Your task to perform on an android device: When is my next meeting? Image 0: 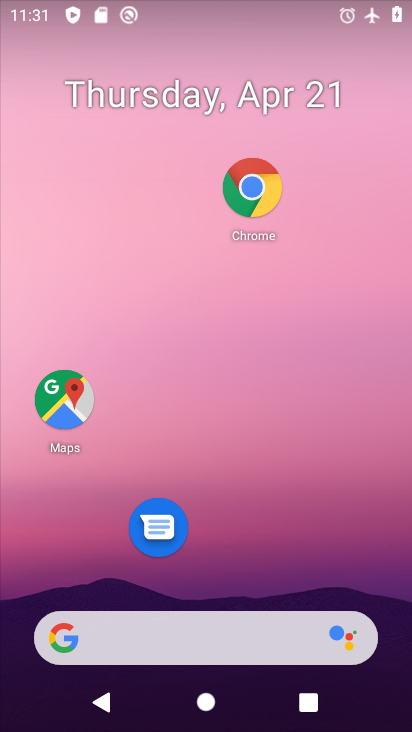
Step 0: drag from (240, 618) to (335, 68)
Your task to perform on an android device: When is my next meeting? Image 1: 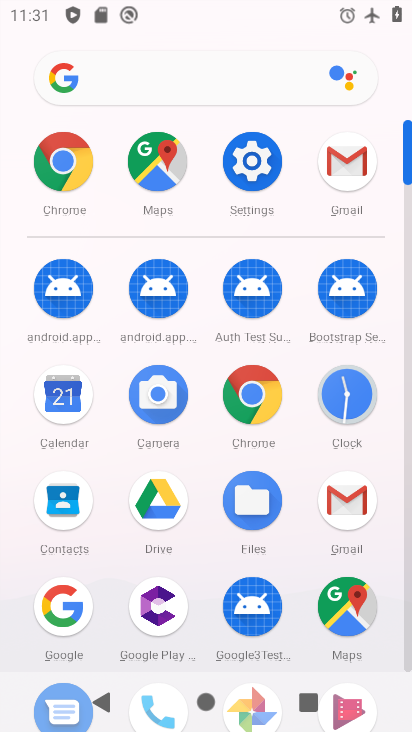
Step 1: click (72, 378)
Your task to perform on an android device: When is my next meeting? Image 2: 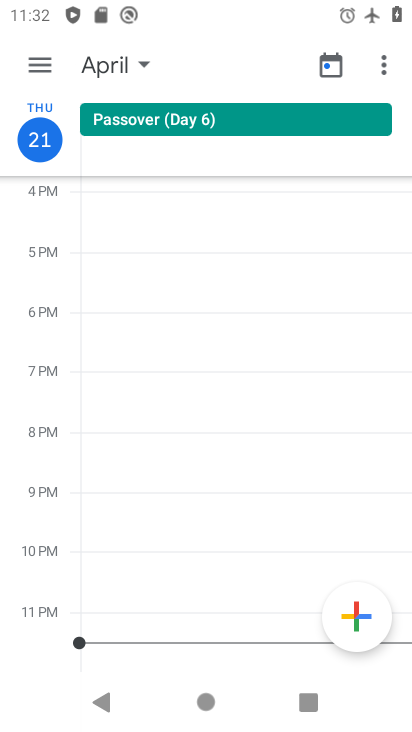
Step 2: click (45, 56)
Your task to perform on an android device: When is my next meeting? Image 3: 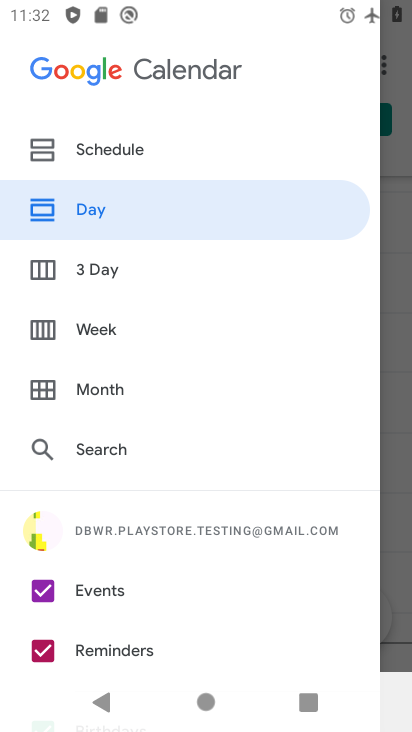
Step 3: click (136, 144)
Your task to perform on an android device: When is my next meeting? Image 4: 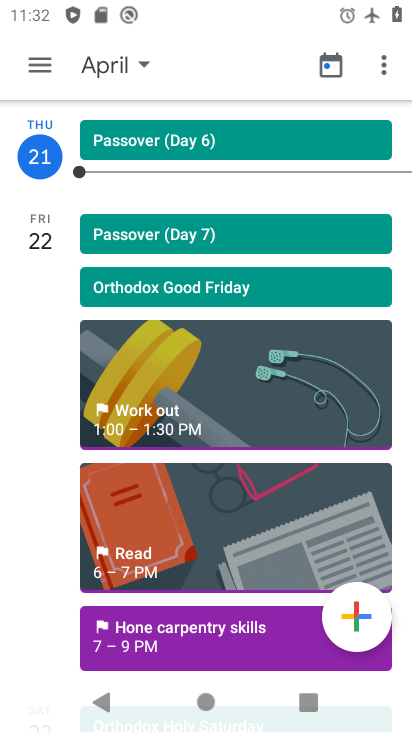
Step 4: task complete